Your task to perform on an android device: turn off notifications in google photos Image 0: 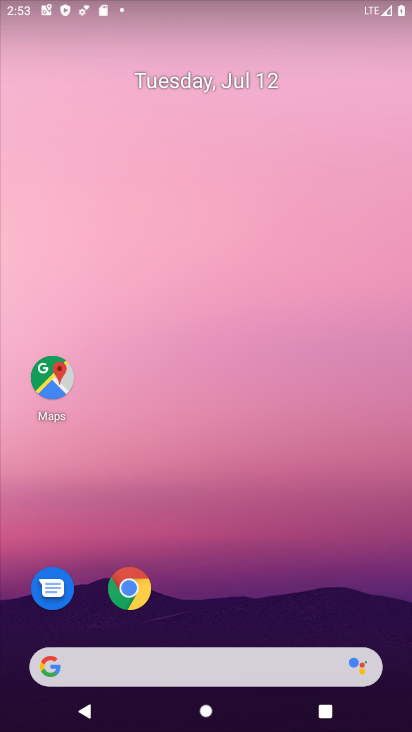
Step 0: drag from (173, 683) to (262, 10)
Your task to perform on an android device: turn off notifications in google photos Image 1: 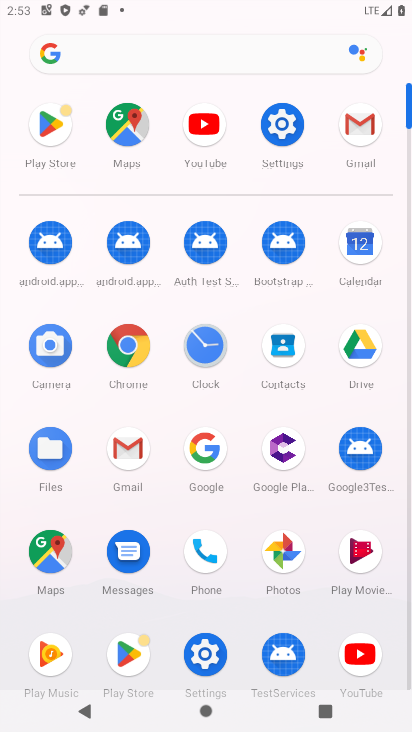
Step 1: click (286, 550)
Your task to perform on an android device: turn off notifications in google photos Image 2: 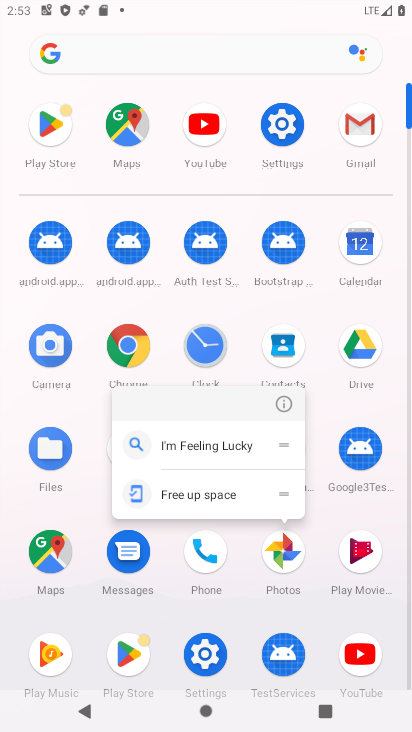
Step 2: click (287, 402)
Your task to perform on an android device: turn off notifications in google photos Image 3: 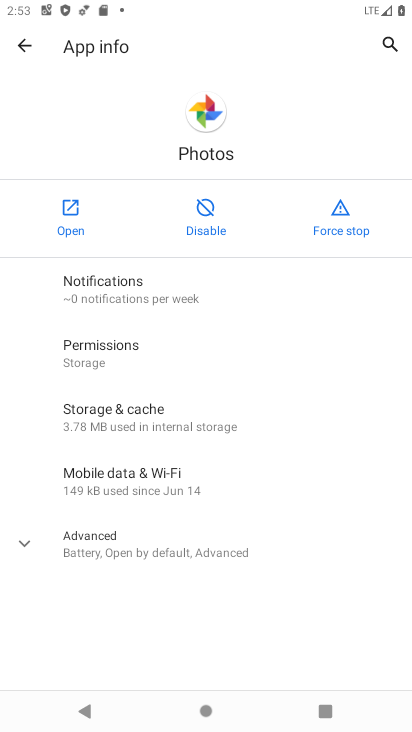
Step 3: click (273, 291)
Your task to perform on an android device: turn off notifications in google photos Image 4: 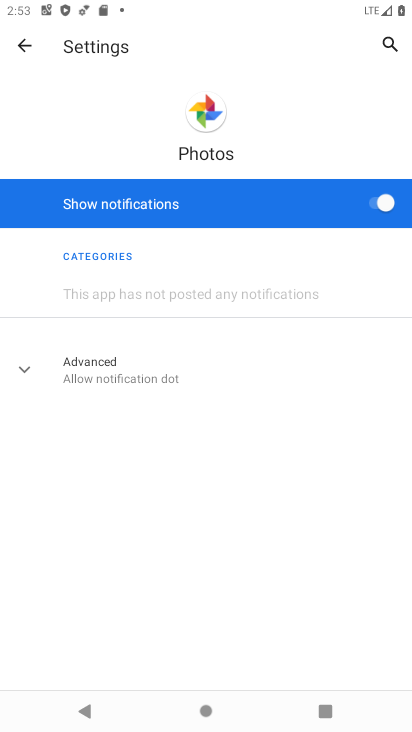
Step 4: click (377, 202)
Your task to perform on an android device: turn off notifications in google photos Image 5: 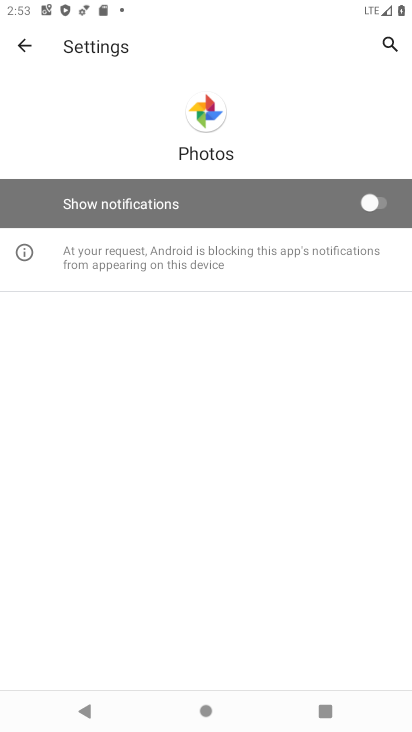
Step 5: task complete